Your task to perform on an android device: turn off location history Image 0: 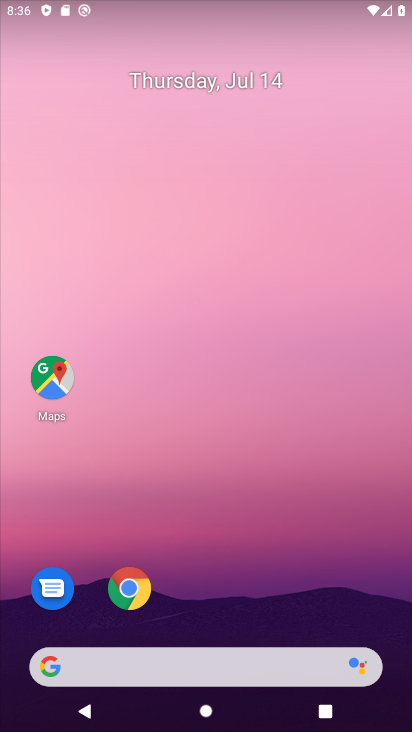
Step 0: drag from (168, 613) to (244, 83)
Your task to perform on an android device: turn off location history Image 1: 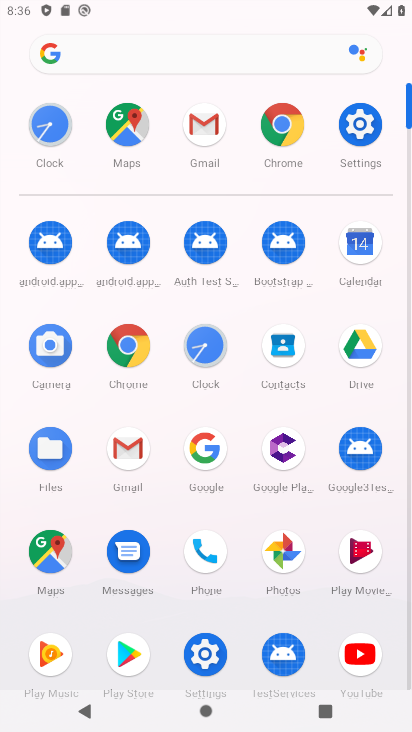
Step 1: click (362, 125)
Your task to perform on an android device: turn off location history Image 2: 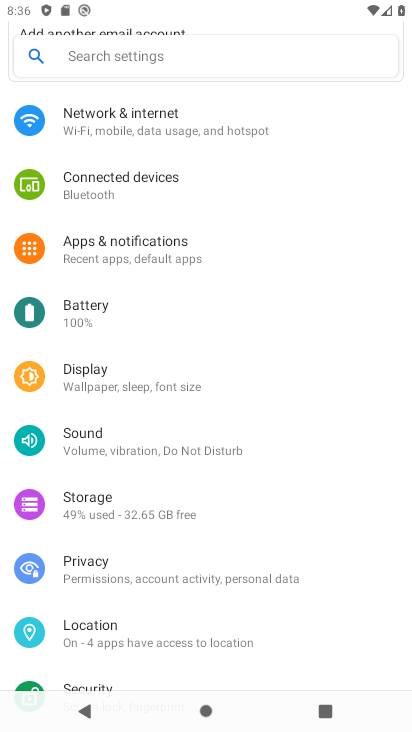
Step 2: click (127, 635)
Your task to perform on an android device: turn off location history Image 3: 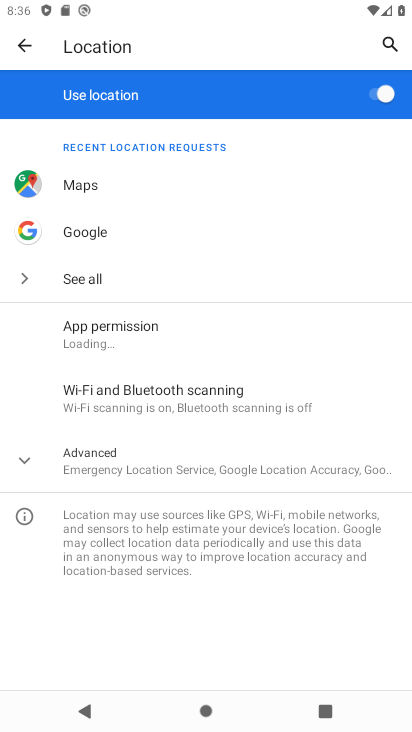
Step 3: click (87, 484)
Your task to perform on an android device: turn off location history Image 4: 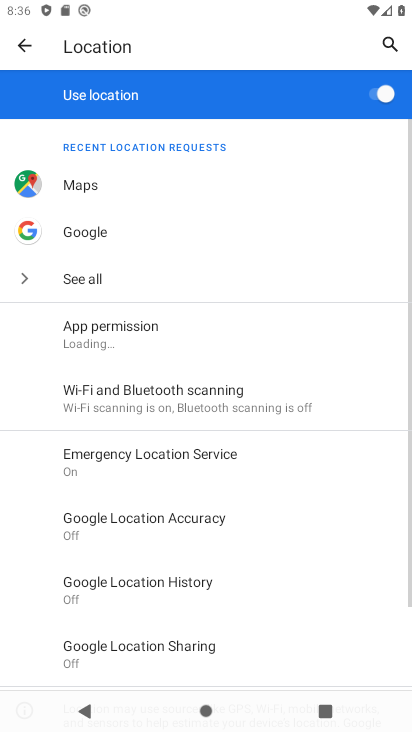
Step 4: click (162, 581)
Your task to perform on an android device: turn off location history Image 5: 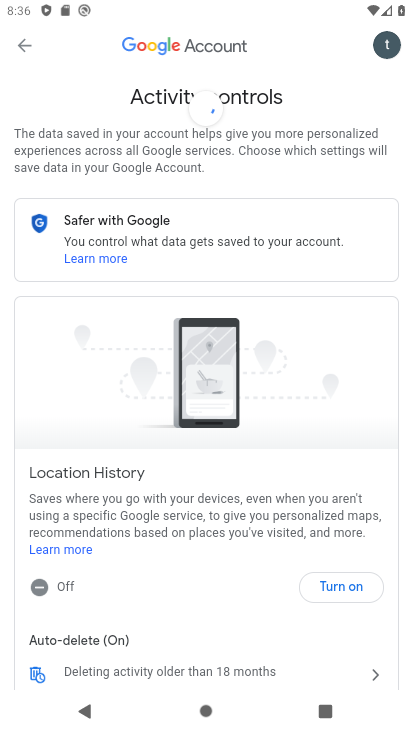
Step 5: task complete